Your task to perform on an android device: Open maps Image 0: 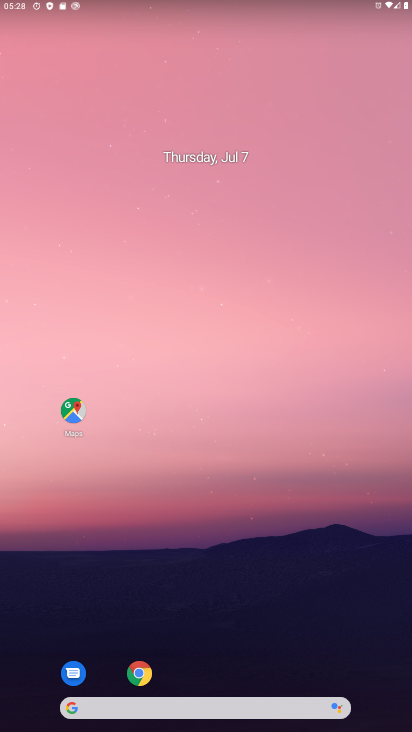
Step 0: drag from (291, 695) to (299, 35)
Your task to perform on an android device: Open maps Image 1: 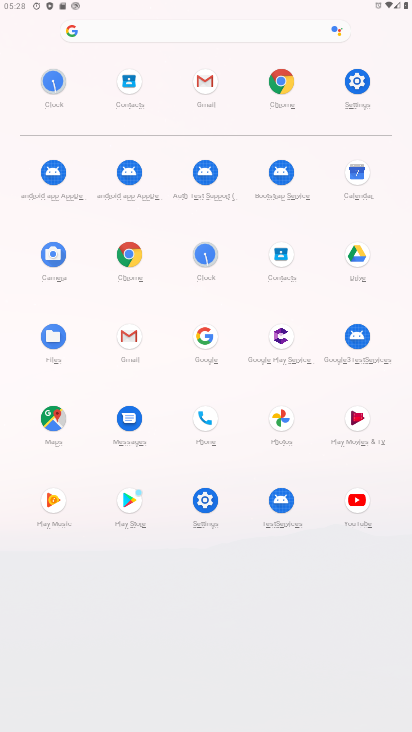
Step 1: click (51, 414)
Your task to perform on an android device: Open maps Image 2: 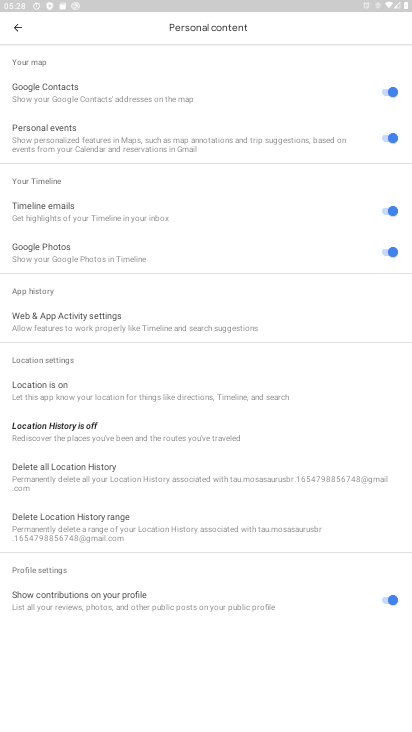
Step 2: task complete